Your task to perform on an android device: Search for good Chinese restaurants Image 0: 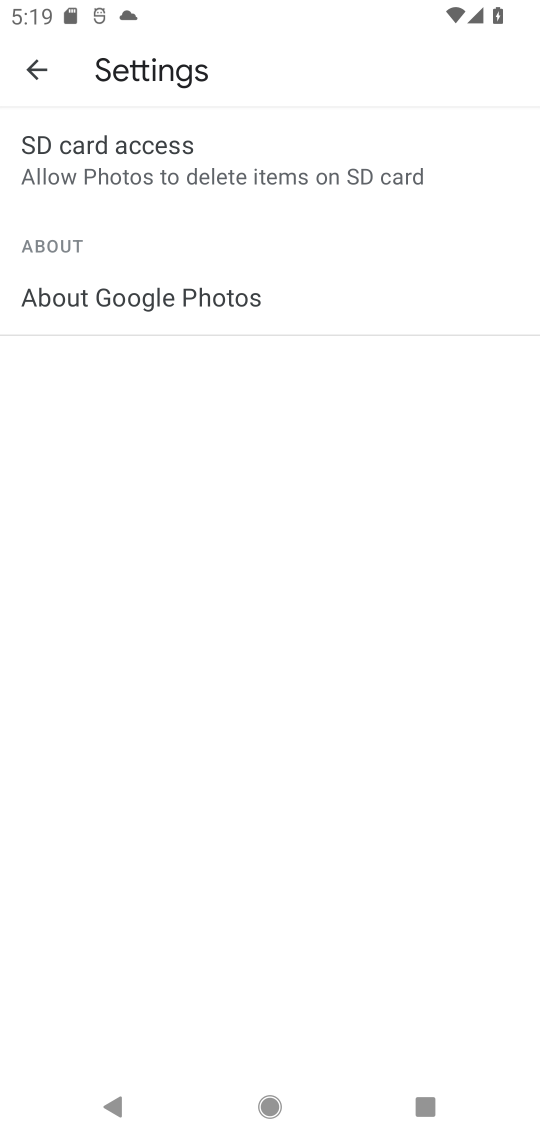
Step 0: press home button
Your task to perform on an android device: Search for good Chinese restaurants Image 1: 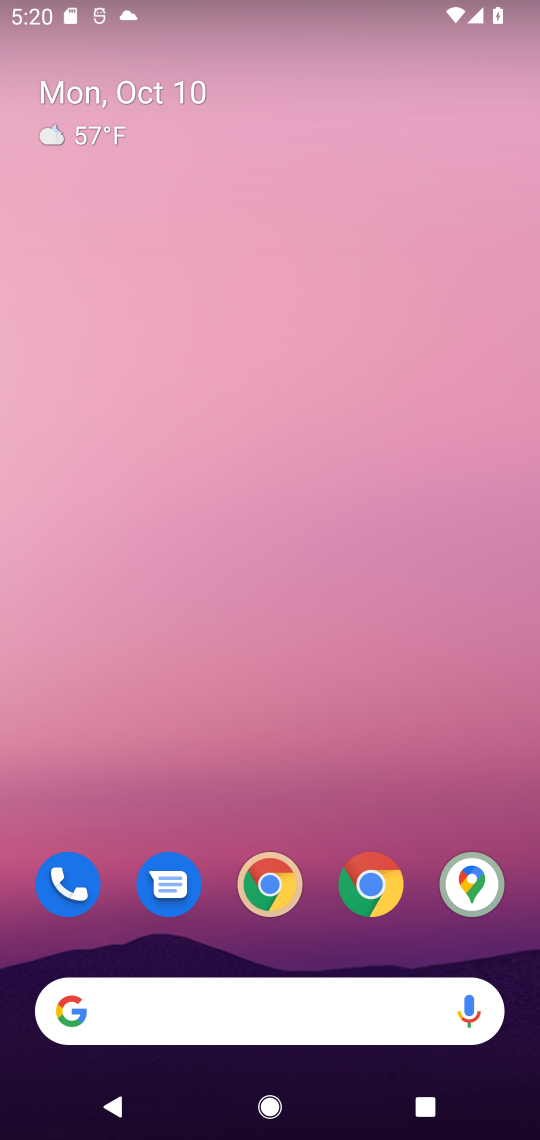
Step 1: click (205, 1018)
Your task to perform on an android device: Search for good Chinese restaurants Image 2: 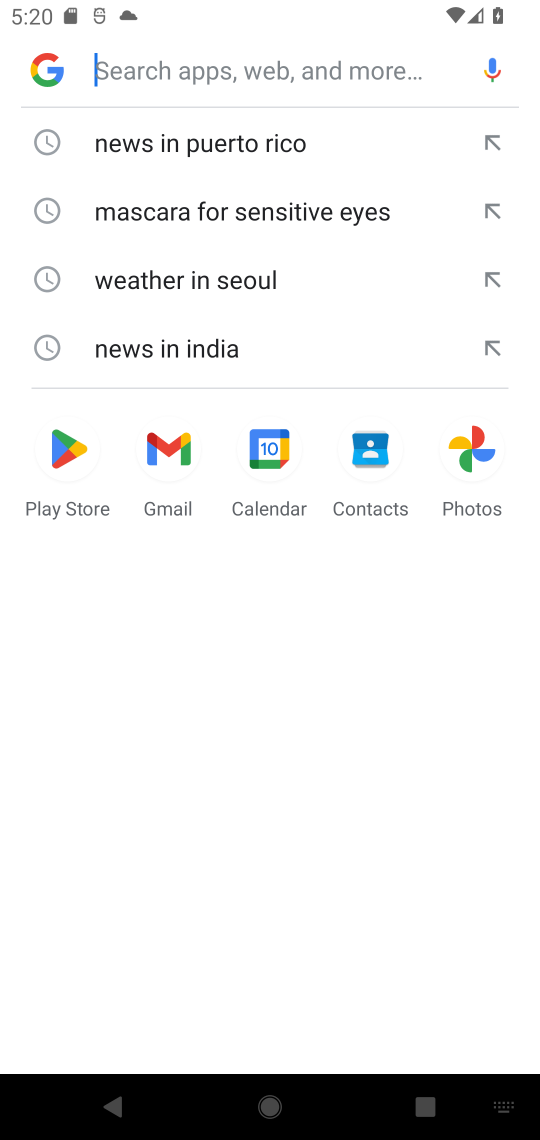
Step 2: type "good chinese restaurant "
Your task to perform on an android device: Search for good Chinese restaurants Image 3: 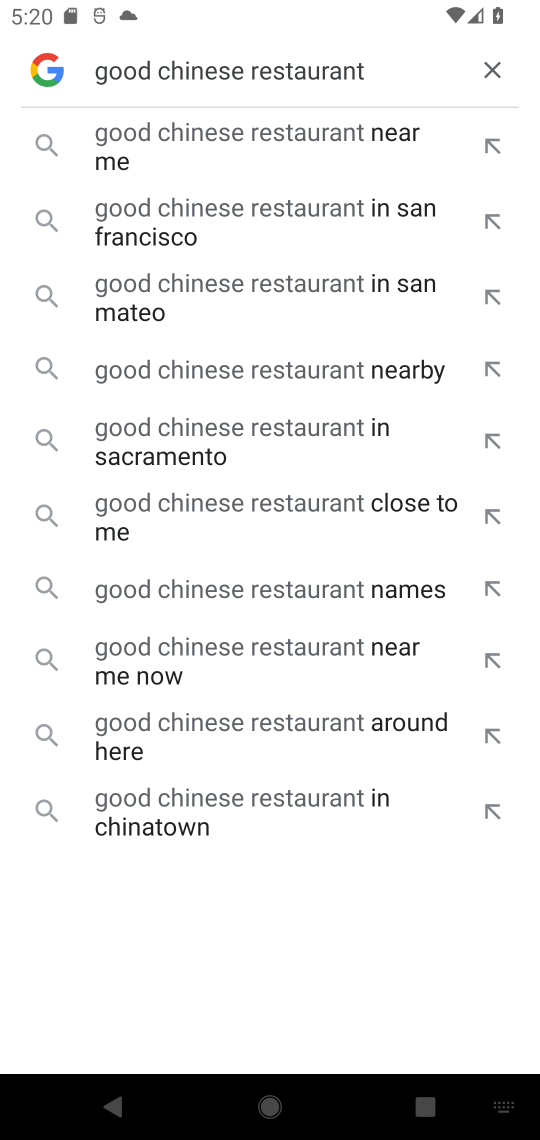
Step 3: click (327, 138)
Your task to perform on an android device: Search for good Chinese restaurants Image 4: 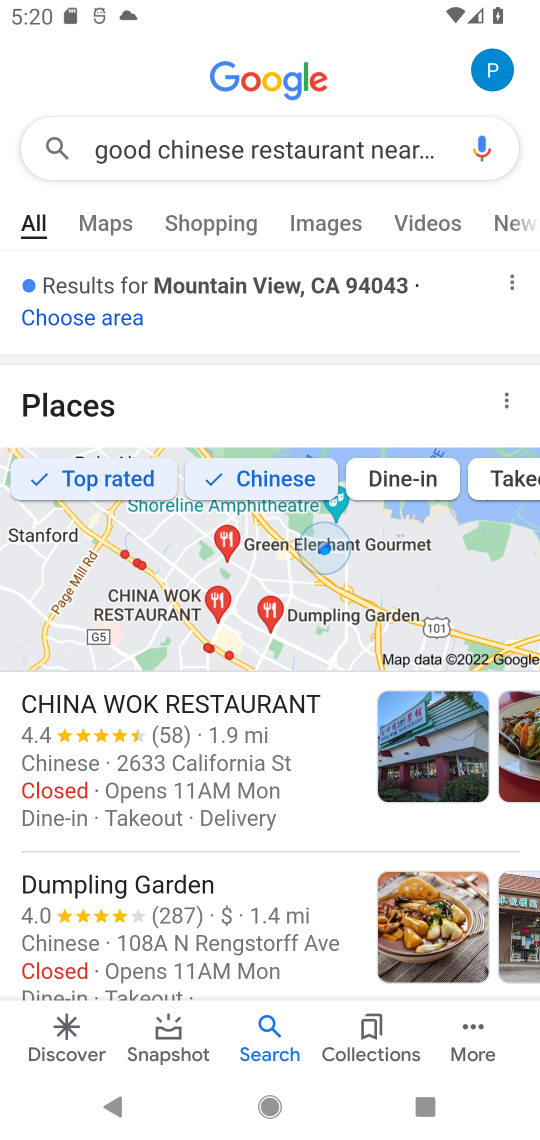
Step 4: task complete